Your task to perform on an android device: open app "DuckDuckGo Privacy Browser" (install if not already installed) Image 0: 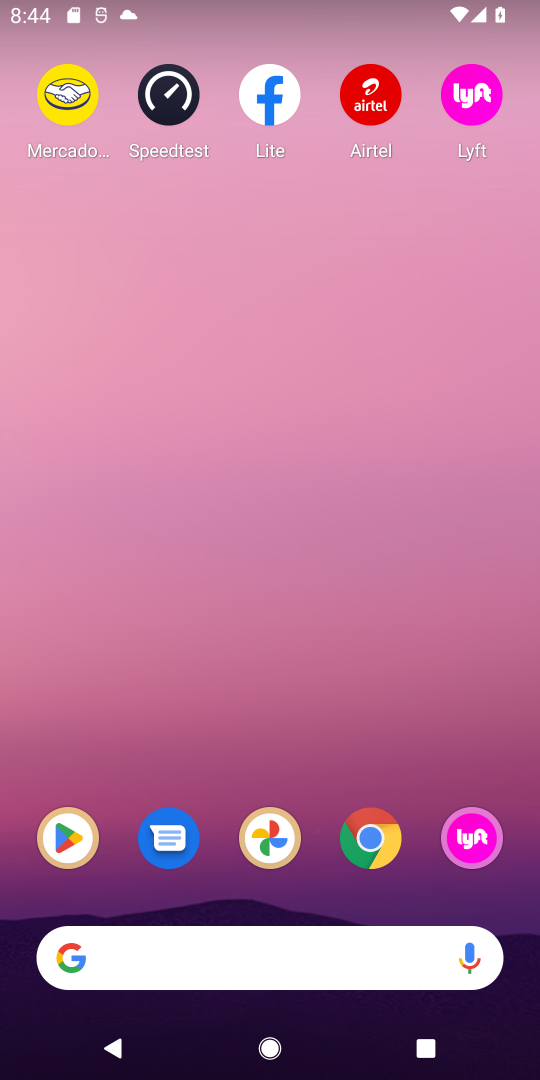
Step 0: press home button
Your task to perform on an android device: open app "DuckDuckGo Privacy Browser" (install if not already installed) Image 1: 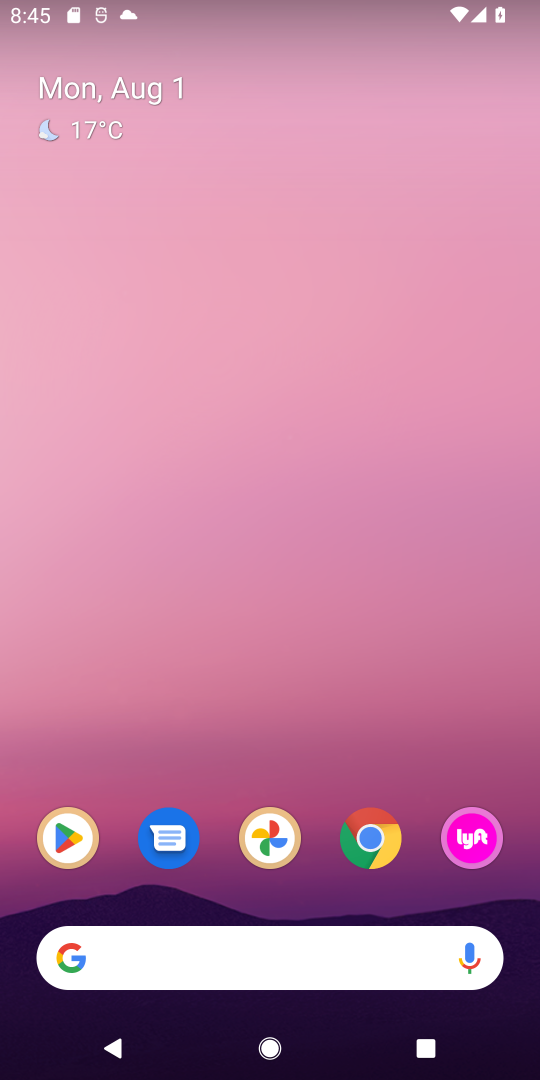
Step 1: click (68, 838)
Your task to perform on an android device: open app "DuckDuckGo Privacy Browser" (install if not already installed) Image 2: 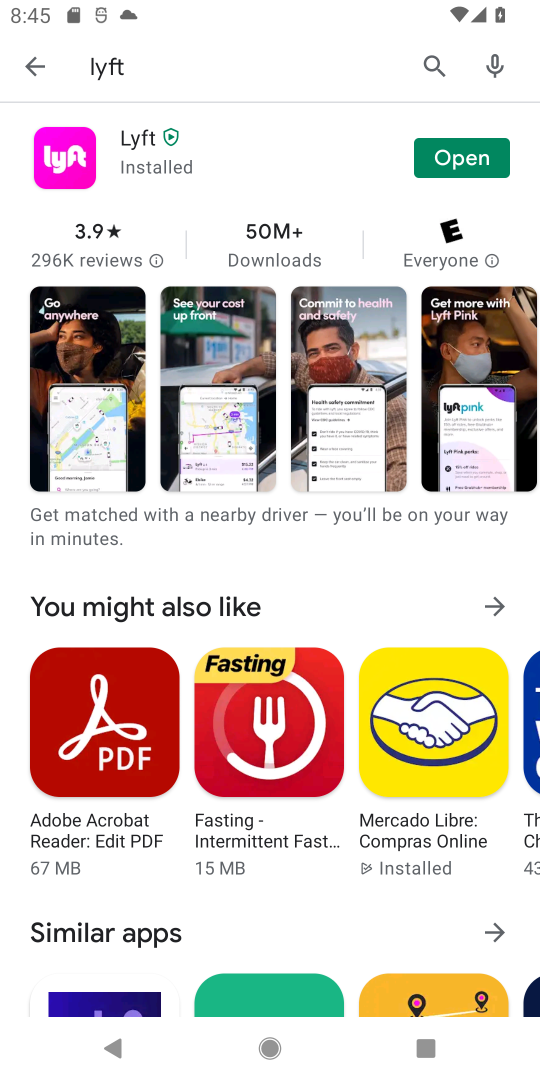
Step 2: click (420, 56)
Your task to perform on an android device: open app "DuckDuckGo Privacy Browser" (install if not already installed) Image 3: 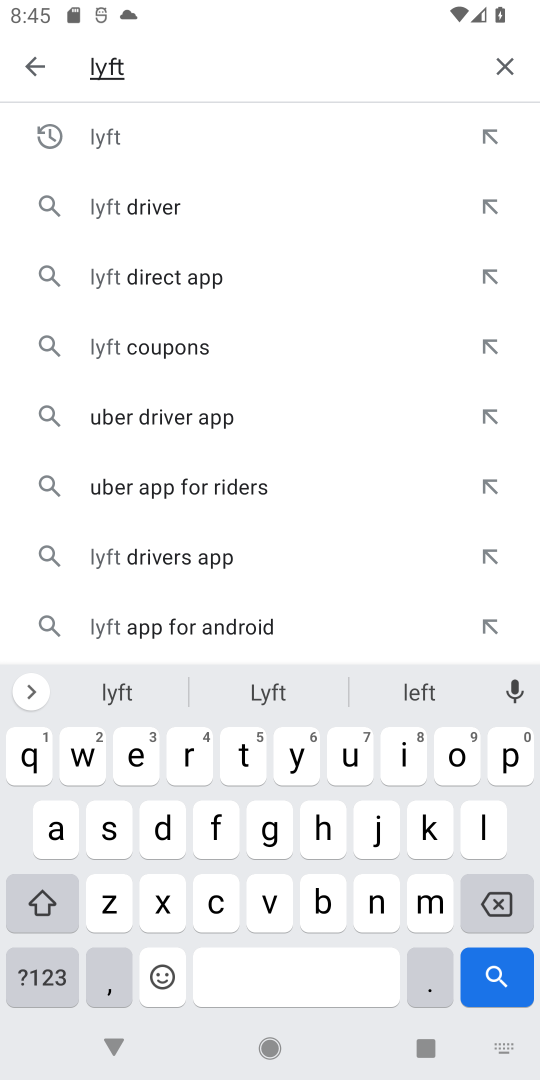
Step 3: click (509, 61)
Your task to perform on an android device: open app "DuckDuckGo Privacy Browser" (install if not already installed) Image 4: 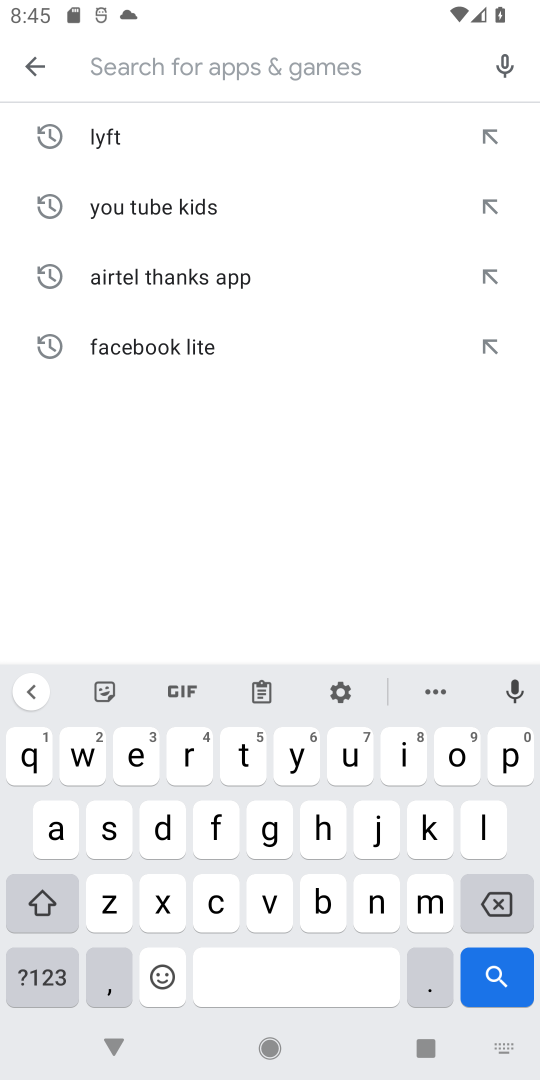
Step 4: type "duckduckgo"
Your task to perform on an android device: open app "DuckDuckGo Privacy Browser" (install if not already installed) Image 5: 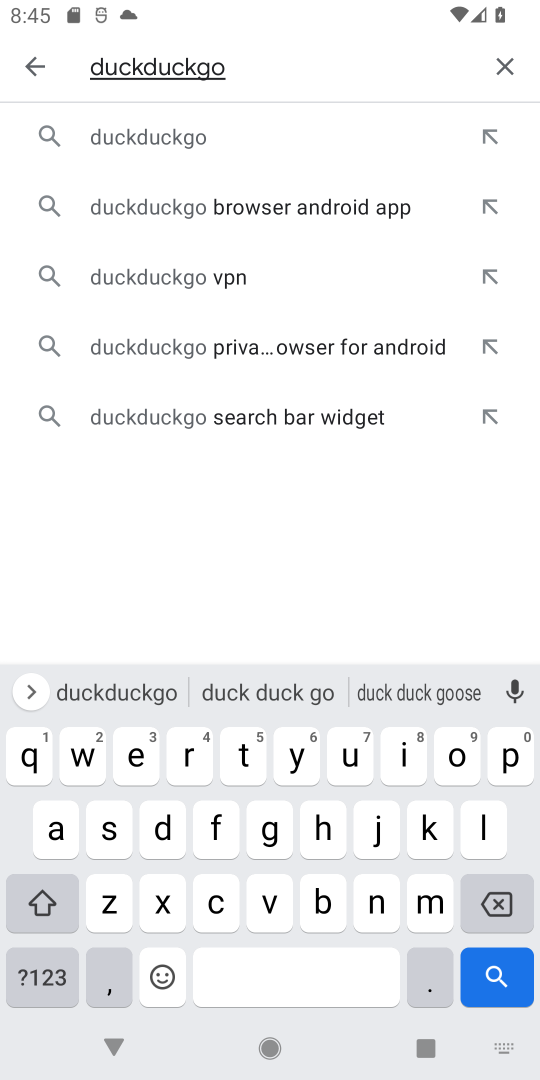
Step 5: click (166, 139)
Your task to perform on an android device: open app "DuckDuckGo Privacy Browser" (install if not already installed) Image 6: 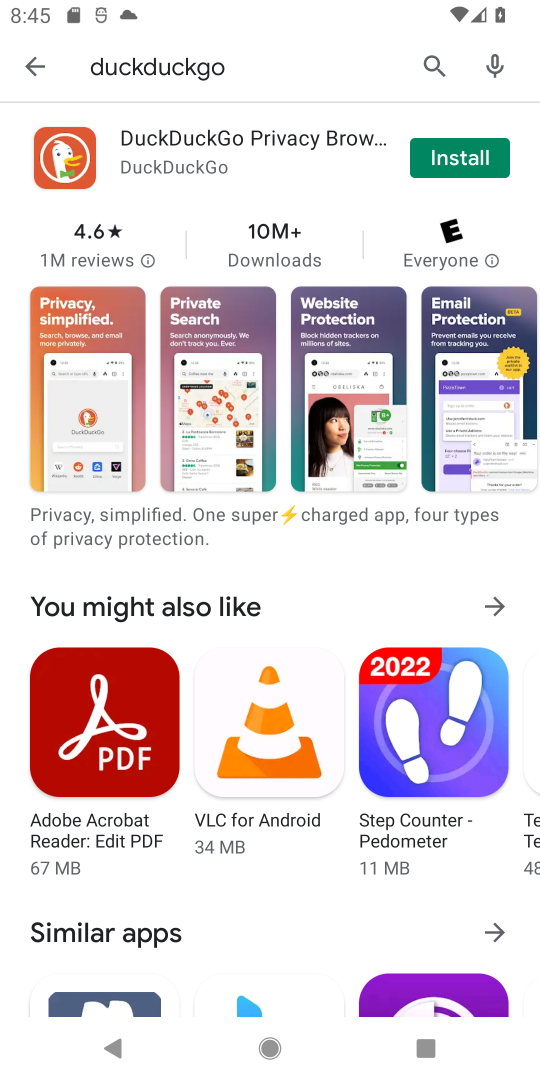
Step 6: click (416, 143)
Your task to perform on an android device: open app "DuckDuckGo Privacy Browser" (install if not already installed) Image 7: 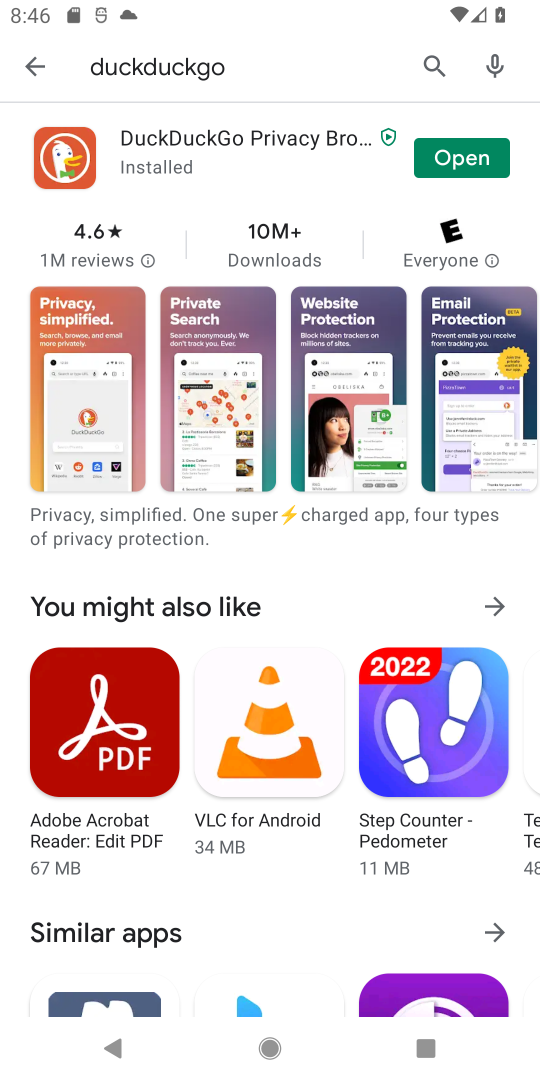
Step 7: click (448, 157)
Your task to perform on an android device: open app "DuckDuckGo Privacy Browser" (install if not already installed) Image 8: 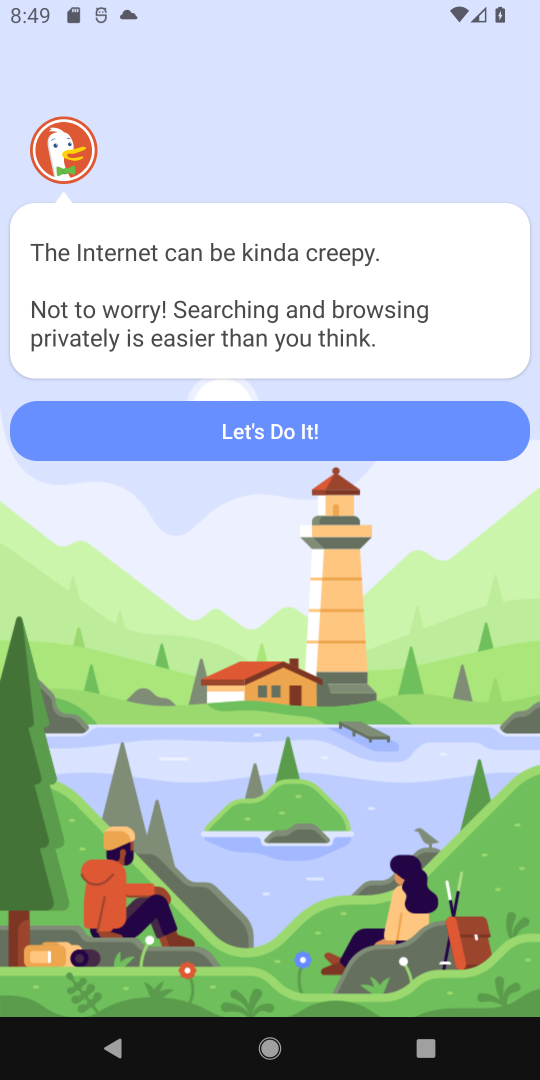
Step 8: task complete